Your task to perform on an android device: What's the weather going to be tomorrow? Image 0: 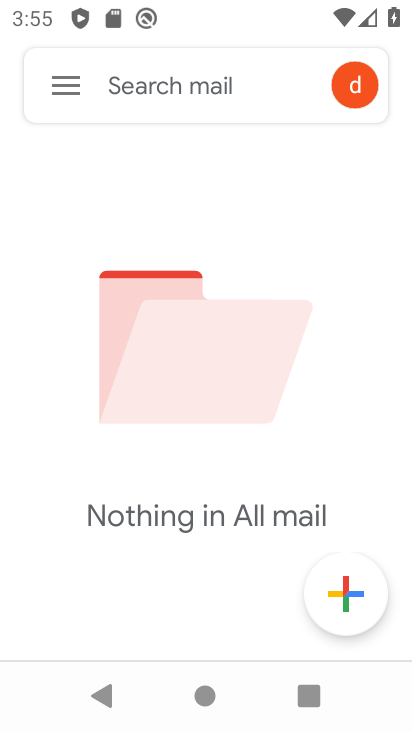
Step 0: press back button
Your task to perform on an android device: What's the weather going to be tomorrow? Image 1: 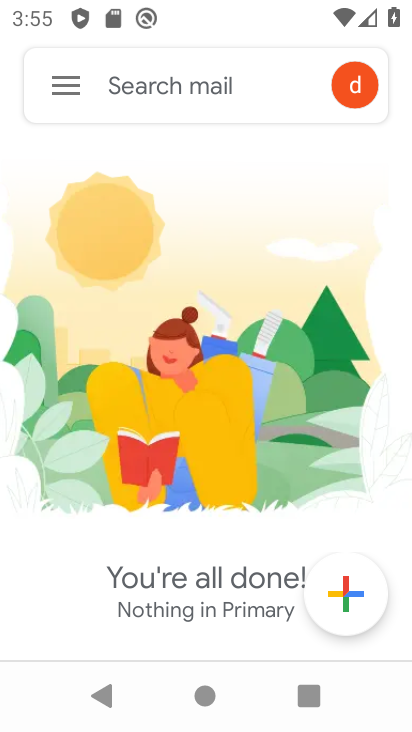
Step 1: press home button
Your task to perform on an android device: What's the weather going to be tomorrow? Image 2: 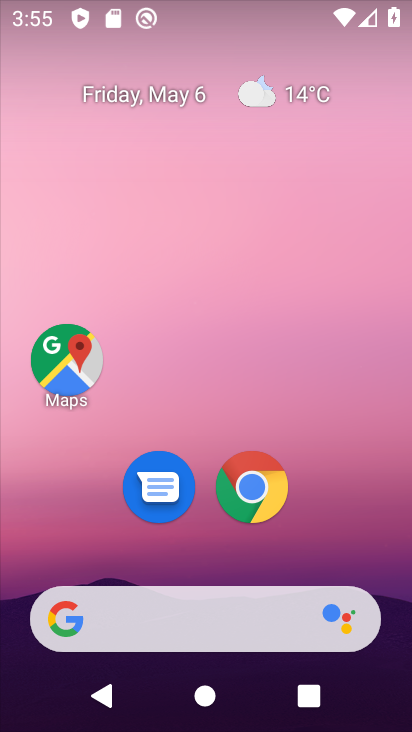
Step 2: click (307, 111)
Your task to perform on an android device: What's the weather going to be tomorrow? Image 3: 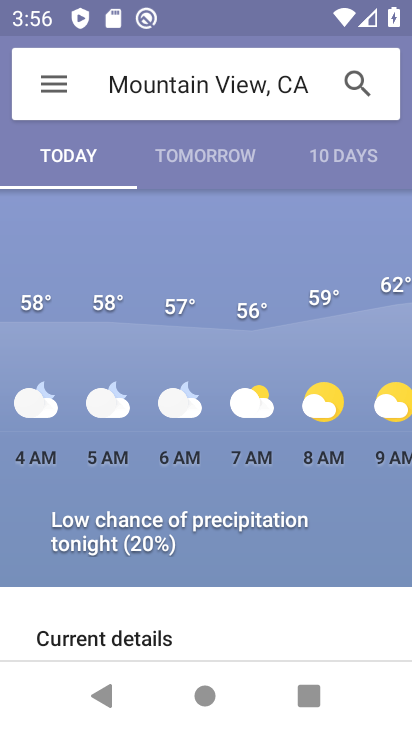
Step 3: click (217, 164)
Your task to perform on an android device: What's the weather going to be tomorrow? Image 4: 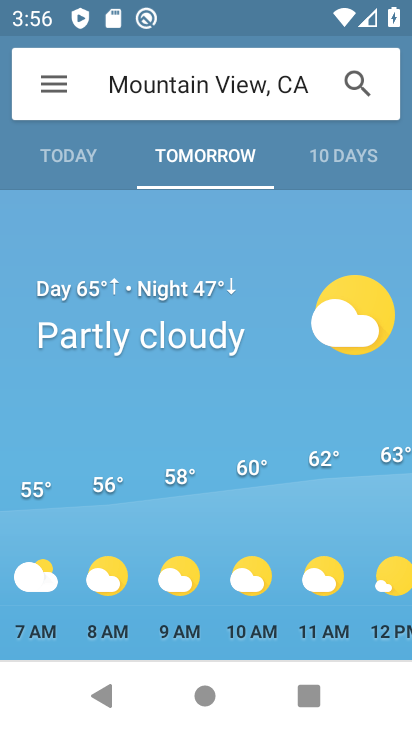
Step 4: task complete